Your task to perform on an android device: Go to accessibility settings Image 0: 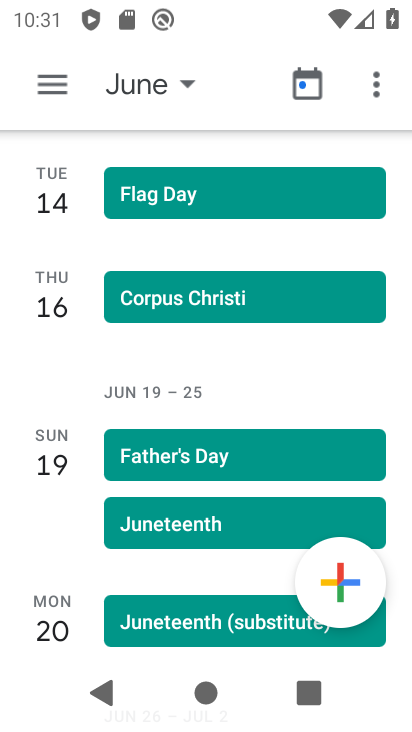
Step 0: press home button
Your task to perform on an android device: Go to accessibility settings Image 1: 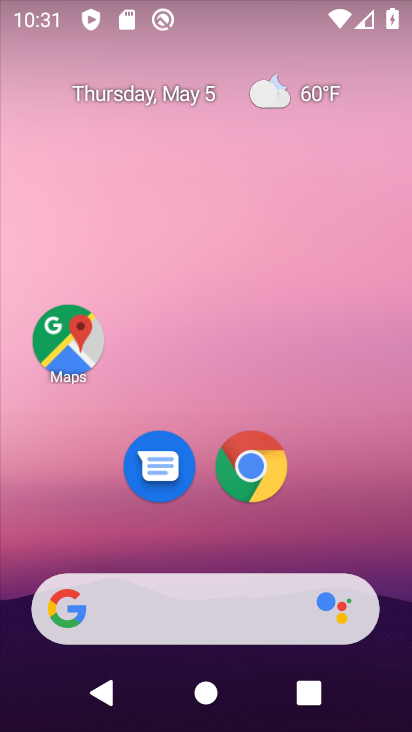
Step 1: drag from (156, 575) to (230, 173)
Your task to perform on an android device: Go to accessibility settings Image 2: 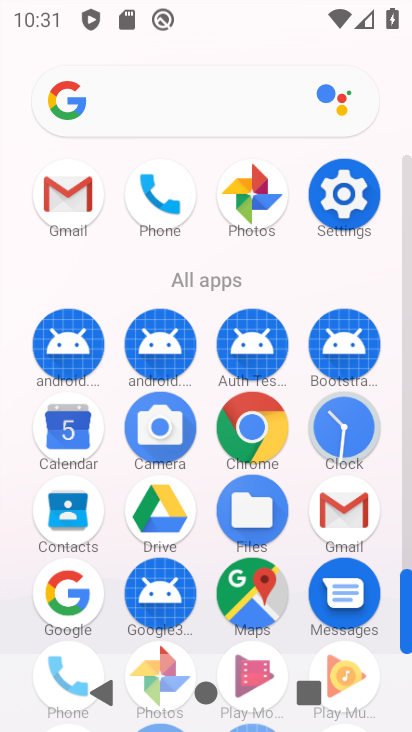
Step 2: click (339, 207)
Your task to perform on an android device: Go to accessibility settings Image 3: 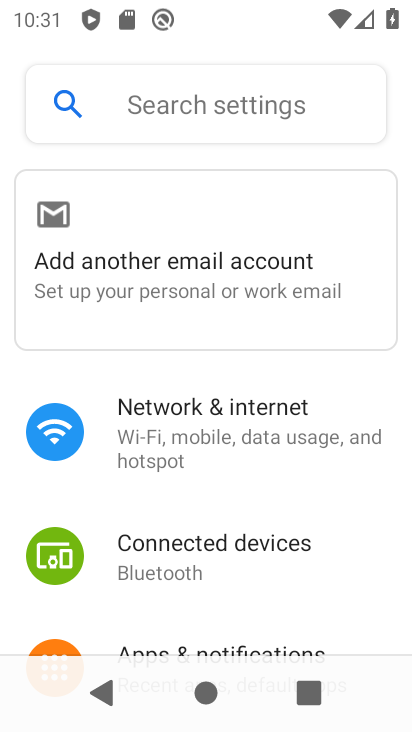
Step 3: drag from (151, 572) to (184, 277)
Your task to perform on an android device: Go to accessibility settings Image 4: 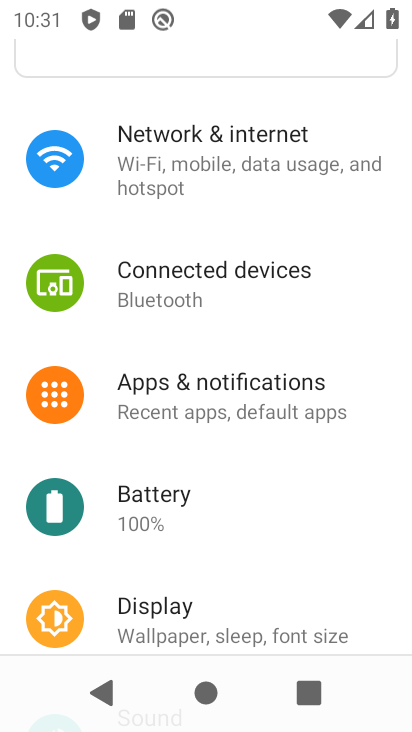
Step 4: drag from (208, 595) to (255, 265)
Your task to perform on an android device: Go to accessibility settings Image 5: 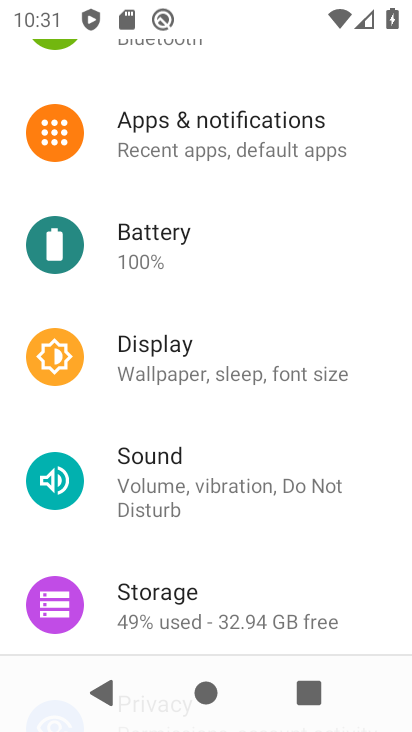
Step 5: drag from (255, 606) to (287, 236)
Your task to perform on an android device: Go to accessibility settings Image 6: 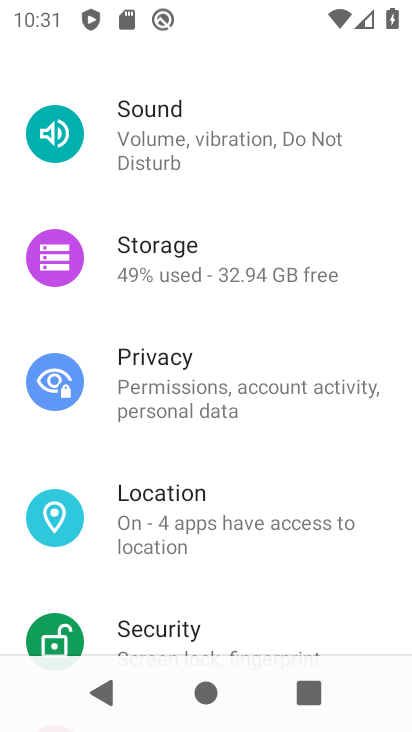
Step 6: drag from (248, 619) to (307, 268)
Your task to perform on an android device: Go to accessibility settings Image 7: 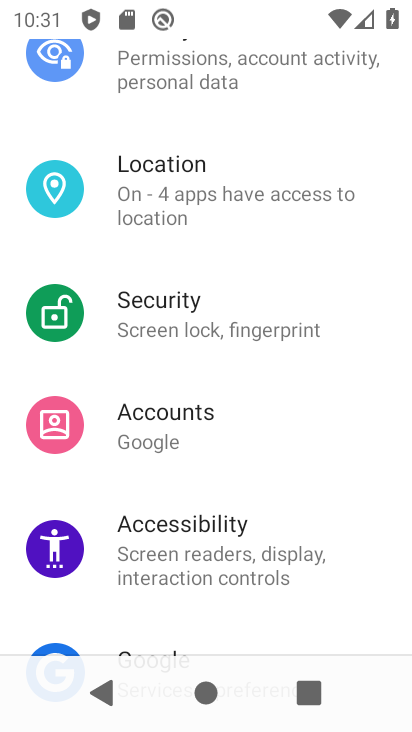
Step 7: click (223, 554)
Your task to perform on an android device: Go to accessibility settings Image 8: 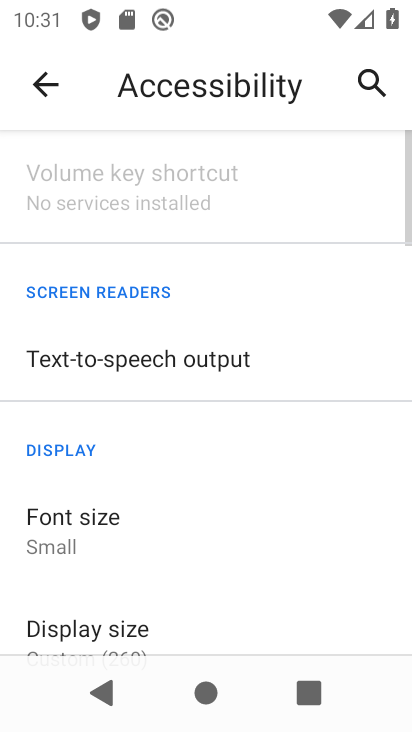
Step 8: task complete